Your task to perform on an android device: Open Google Chrome Image 0: 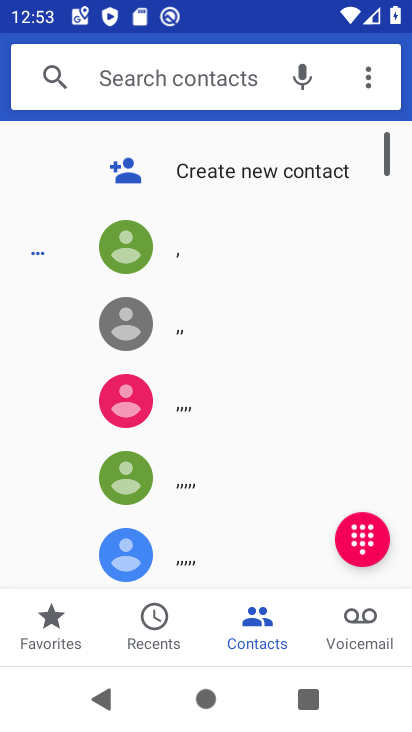
Step 0: press home button
Your task to perform on an android device: Open Google Chrome Image 1: 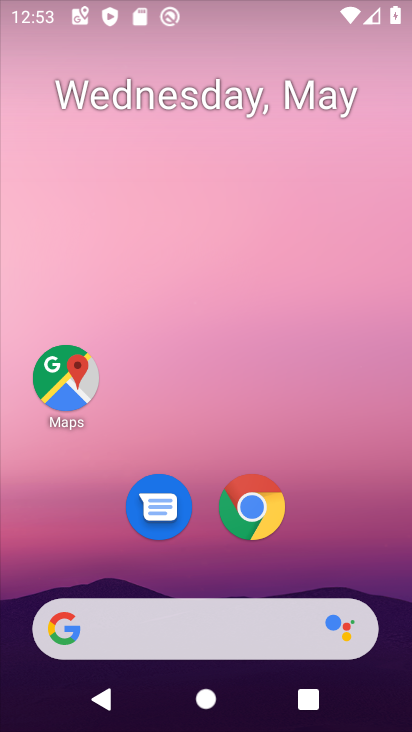
Step 1: drag from (333, 533) to (317, 148)
Your task to perform on an android device: Open Google Chrome Image 2: 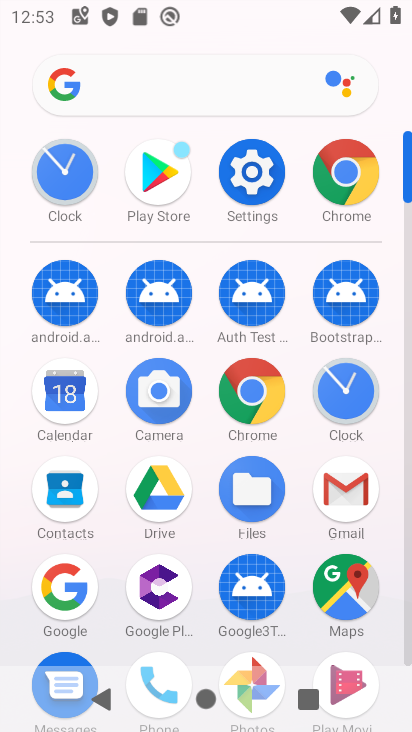
Step 2: click (64, 577)
Your task to perform on an android device: Open Google Chrome Image 3: 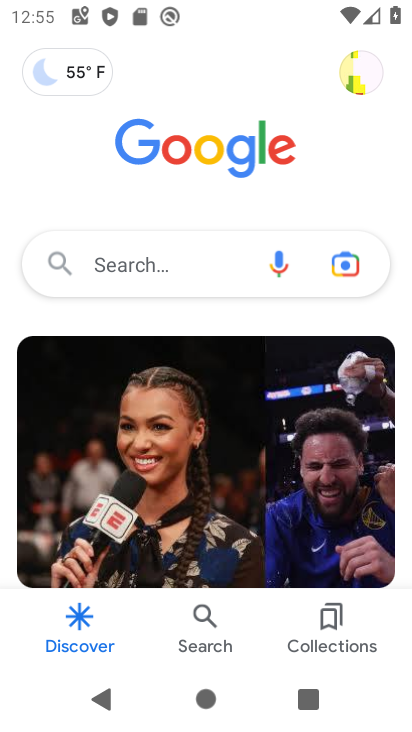
Step 3: task complete